Your task to perform on an android device: Go to notification settings Image 0: 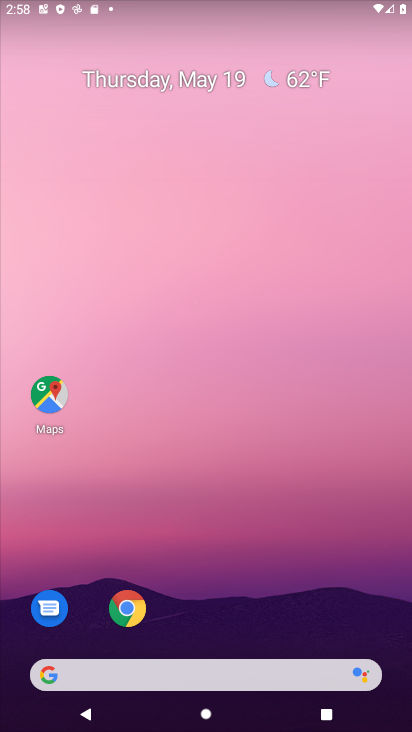
Step 0: drag from (328, 621) to (181, 3)
Your task to perform on an android device: Go to notification settings Image 1: 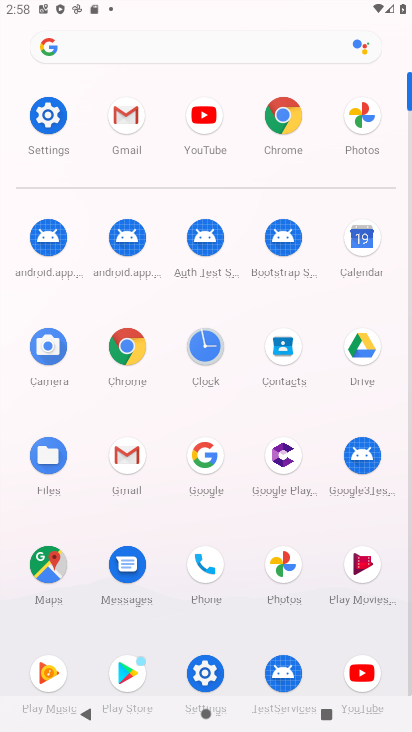
Step 1: click (205, 658)
Your task to perform on an android device: Go to notification settings Image 2: 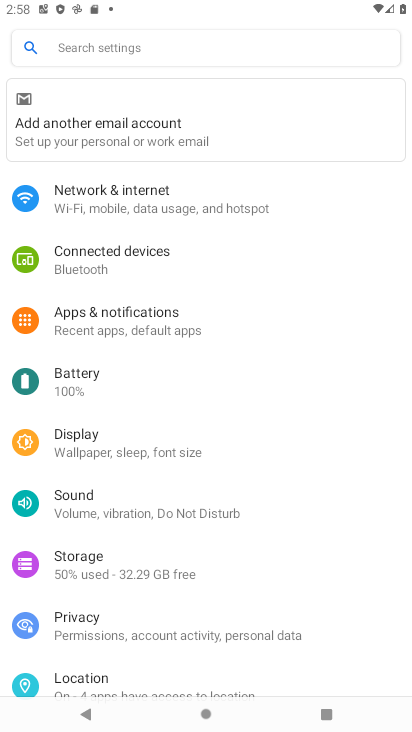
Step 2: click (167, 299)
Your task to perform on an android device: Go to notification settings Image 3: 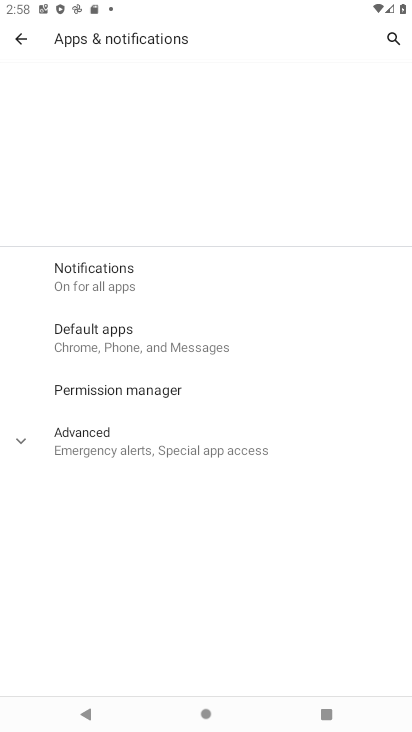
Step 3: task complete